Your task to perform on an android device: turn off sleep mode Image 0: 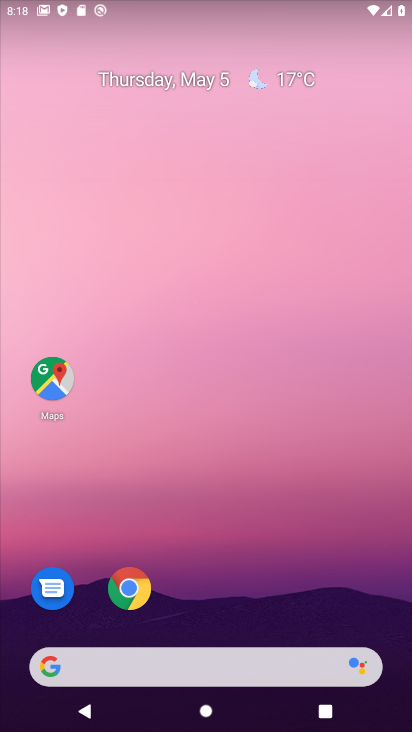
Step 0: click (303, 262)
Your task to perform on an android device: turn off sleep mode Image 1: 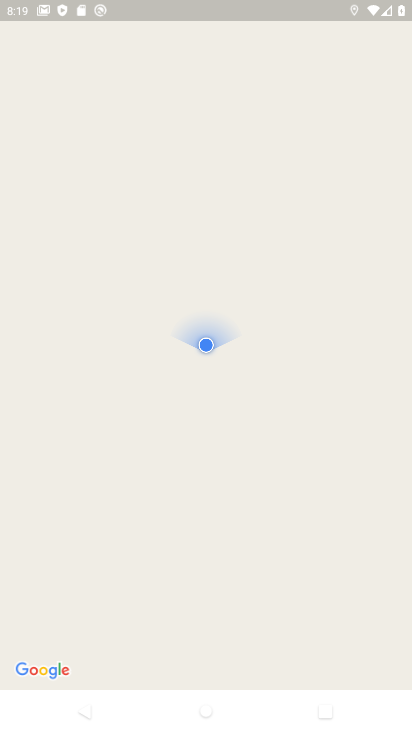
Step 1: press home button
Your task to perform on an android device: turn off sleep mode Image 2: 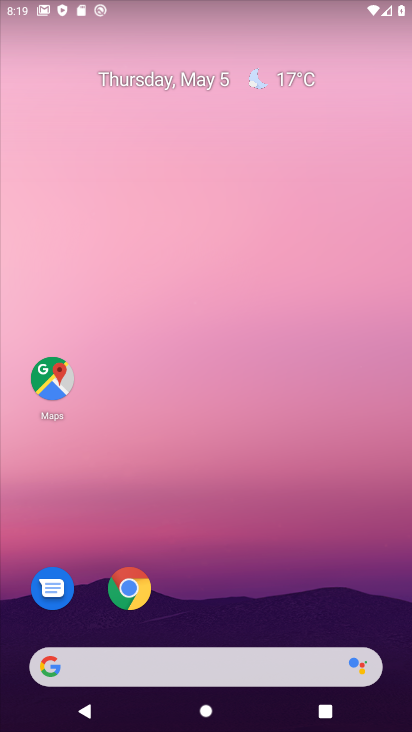
Step 2: drag from (250, 619) to (240, 210)
Your task to perform on an android device: turn off sleep mode Image 3: 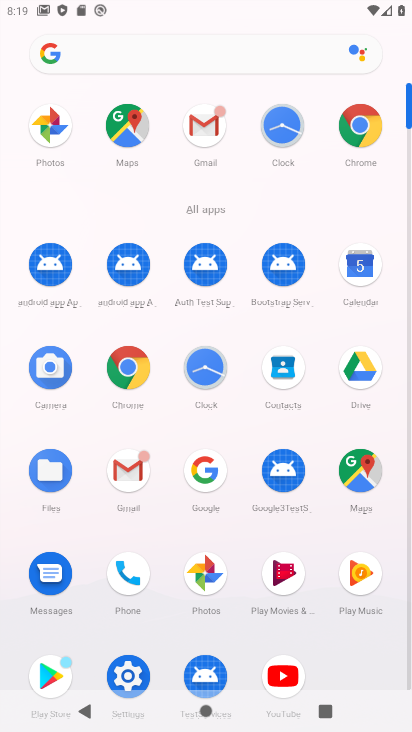
Step 3: click (133, 669)
Your task to perform on an android device: turn off sleep mode Image 4: 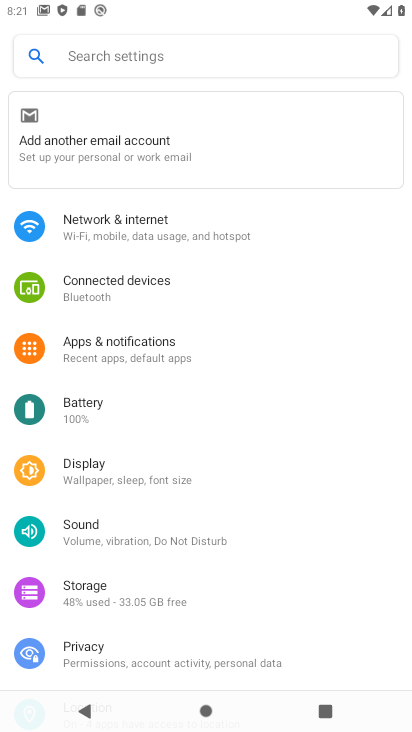
Step 4: task complete